Your task to perform on an android device: Open maps Image 0: 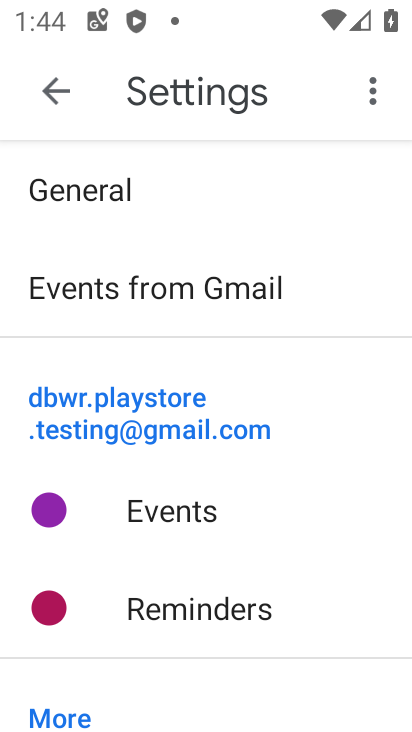
Step 0: press home button
Your task to perform on an android device: Open maps Image 1: 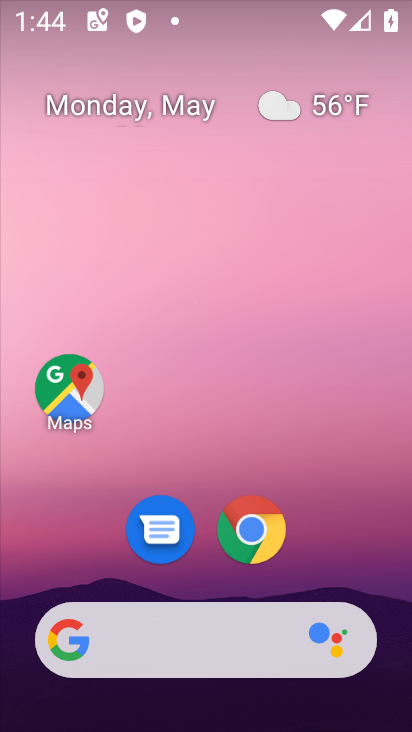
Step 1: drag from (339, 570) to (358, 101)
Your task to perform on an android device: Open maps Image 2: 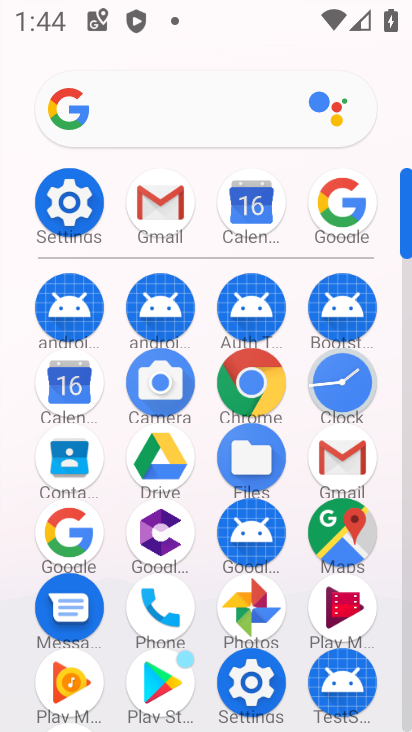
Step 2: click (345, 526)
Your task to perform on an android device: Open maps Image 3: 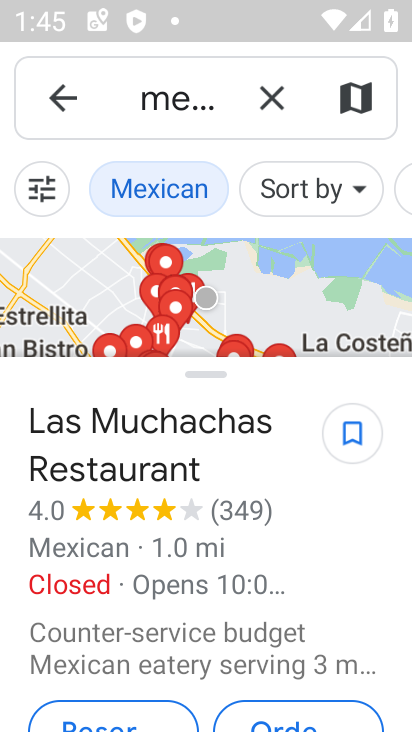
Step 3: click (57, 96)
Your task to perform on an android device: Open maps Image 4: 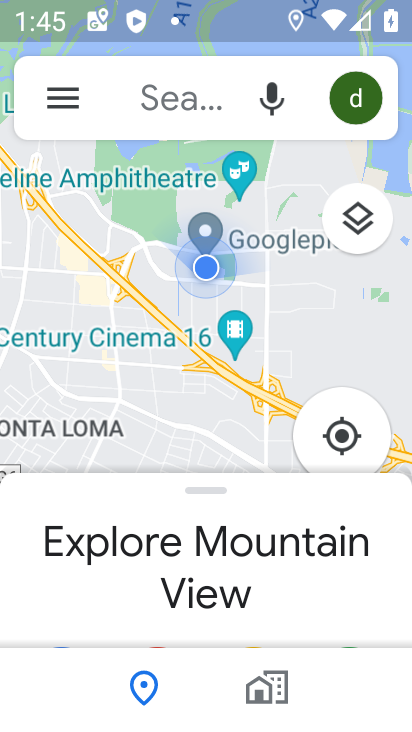
Step 4: task complete